Your task to perform on an android device: Open the phone app and click the voicemail tab. Image 0: 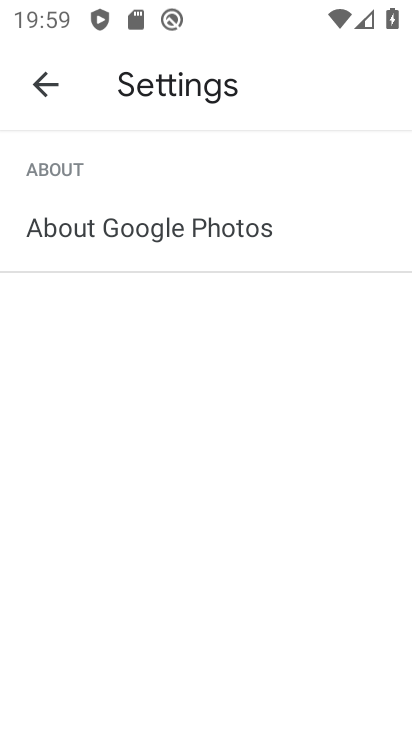
Step 0: press home button
Your task to perform on an android device: Open the phone app and click the voicemail tab. Image 1: 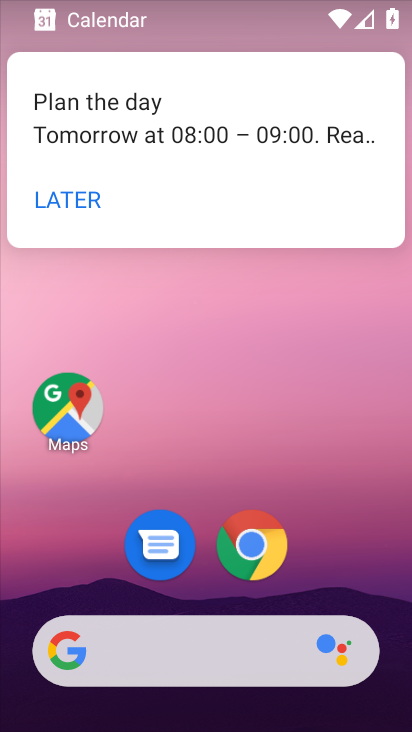
Step 1: drag from (331, 552) to (316, 64)
Your task to perform on an android device: Open the phone app and click the voicemail tab. Image 2: 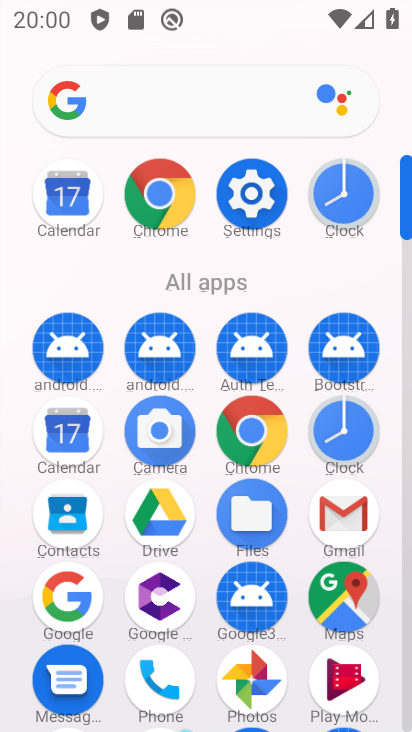
Step 2: drag from (214, 272) to (217, 154)
Your task to perform on an android device: Open the phone app and click the voicemail tab. Image 3: 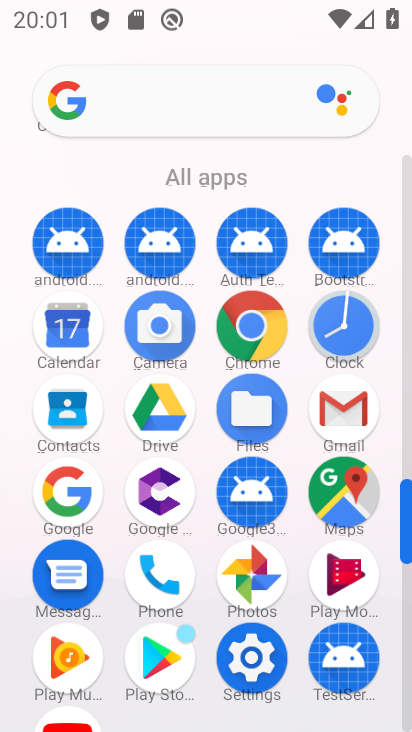
Step 3: click (167, 576)
Your task to perform on an android device: Open the phone app and click the voicemail tab. Image 4: 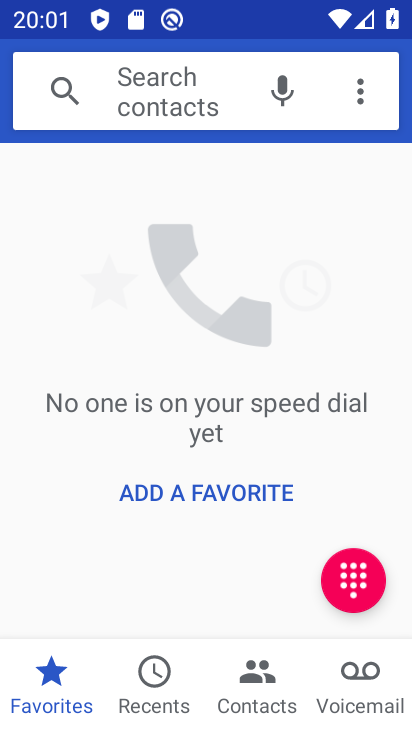
Step 4: click (382, 692)
Your task to perform on an android device: Open the phone app and click the voicemail tab. Image 5: 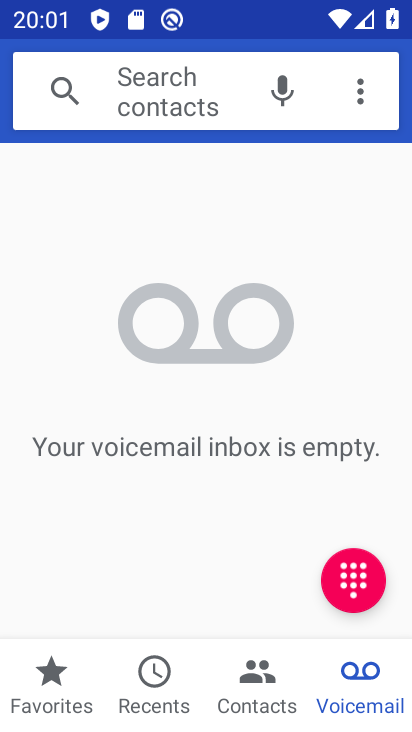
Step 5: task complete